Your task to perform on an android device: Check the weather Image 0: 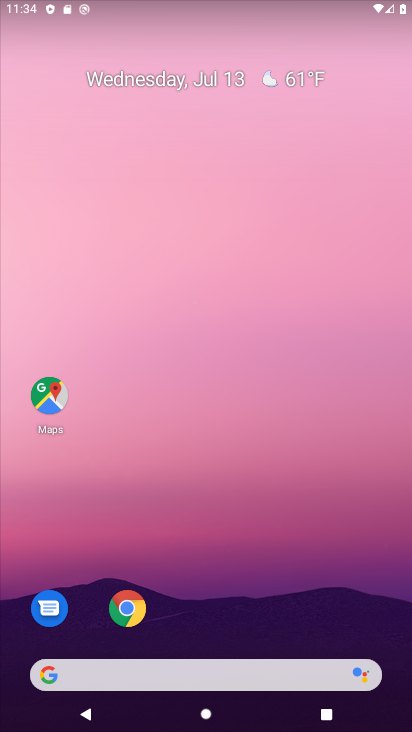
Step 0: click (302, 278)
Your task to perform on an android device: Check the weather Image 1: 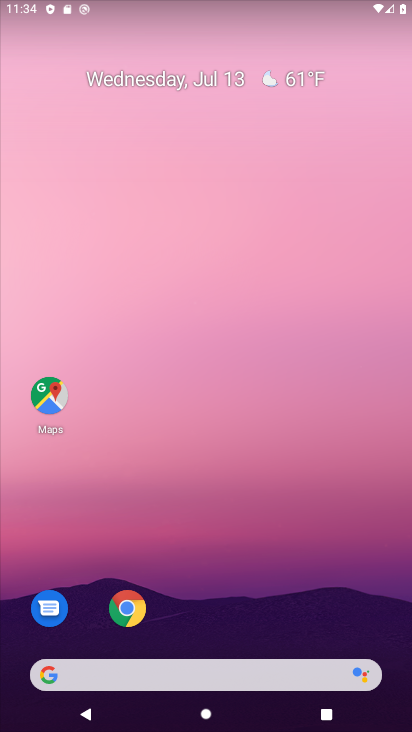
Step 1: drag from (185, 617) to (227, 205)
Your task to perform on an android device: Check the weather Image 2: 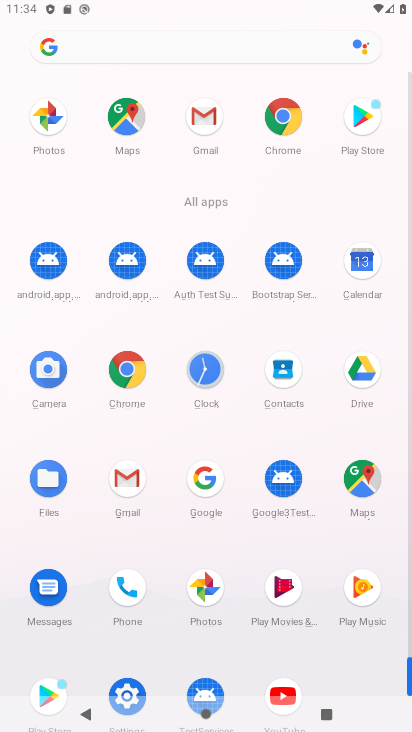
Step 2: click (133, 55)
Your task to perform on an android device: Check the weather Image 3: 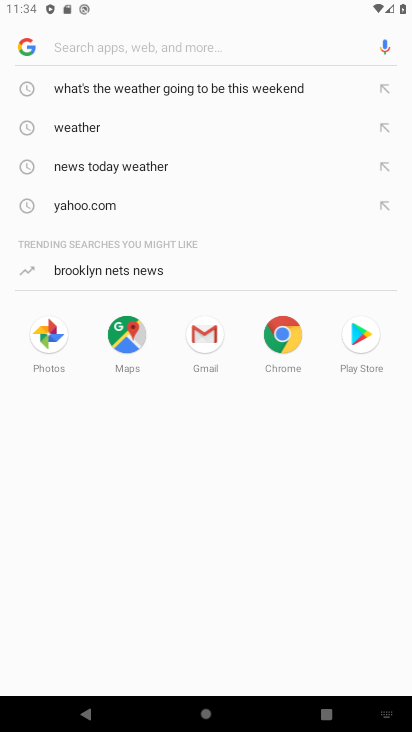
Step 3: click (112, 123)
Your task to perform on an android device: Check the weather Image 4: 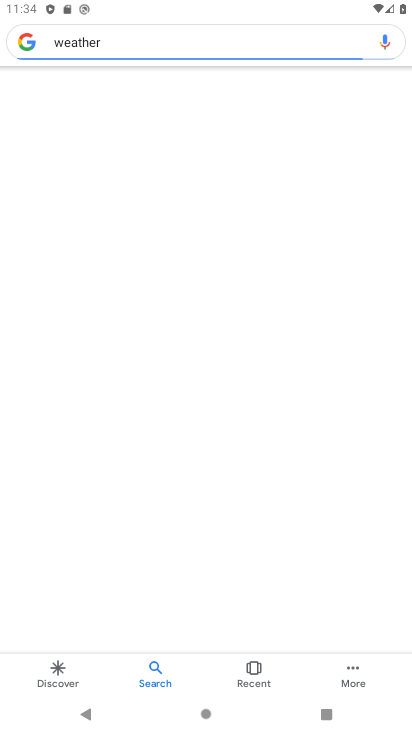
Step 4: task complete